Your task to perform on an android device: check storage Image 0: 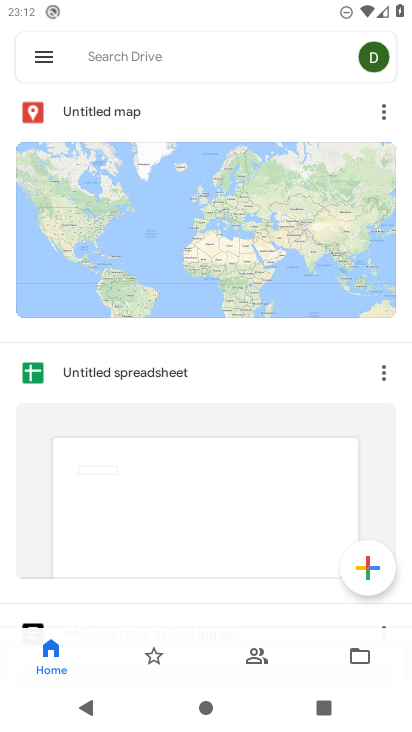
Step 0: press home button
Your task to perform on an android device: check storage Image 1: 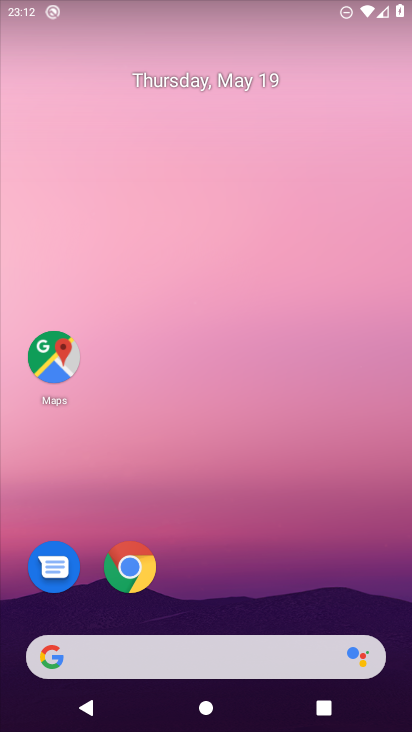
Step 1: drag from (129, 568) to (234, 595)
Your task to perform on an android device: check storage Image 2: 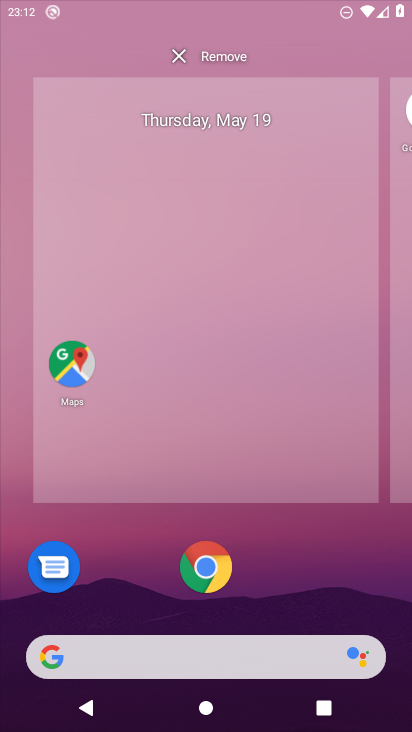
Step 2: click (254, 581)
Your task to perform on an android device: check storage Image 3: 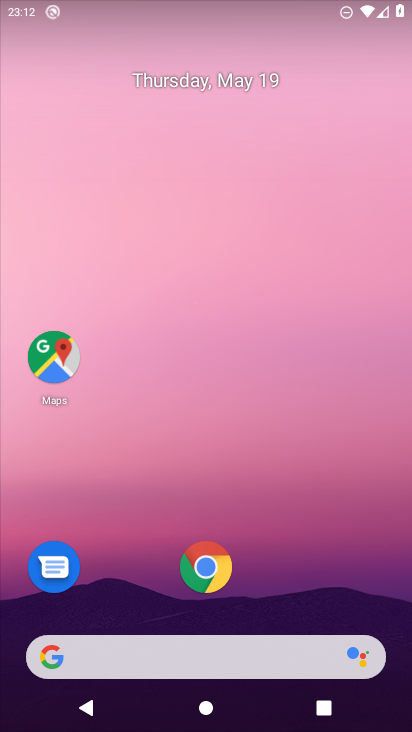
Step 3: drag from (296, 605) to (299, 54)
Your task to perform on an android device: check storage Image 4: 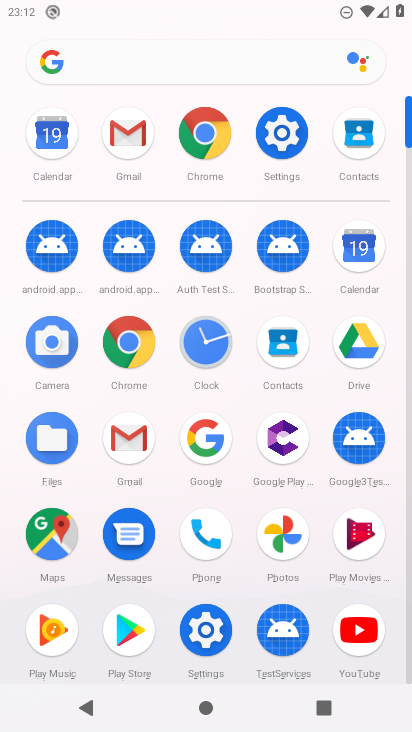
Step 4: click (277, 129)
Your task to perform on an android device: check storage Image 5: 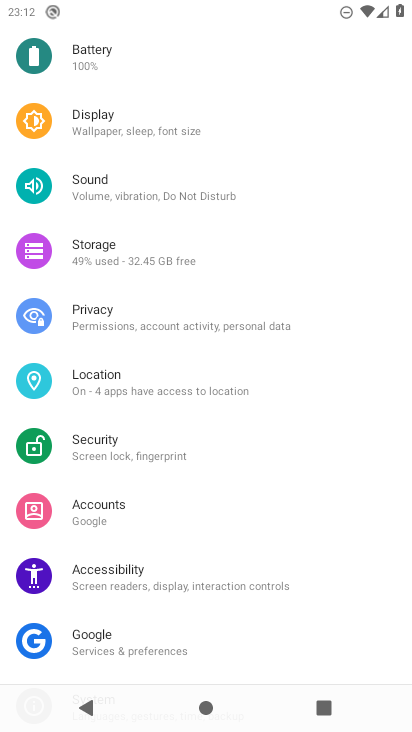
Step 5: click (130, 242)
Your task to perform on an android device: check storage Image 6: 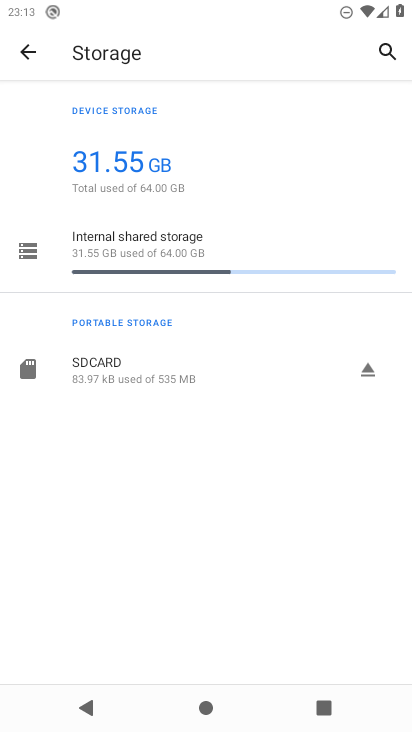
Step 6: task complete